Your task to perform on an android device: Turn off the flashlight Image 0: 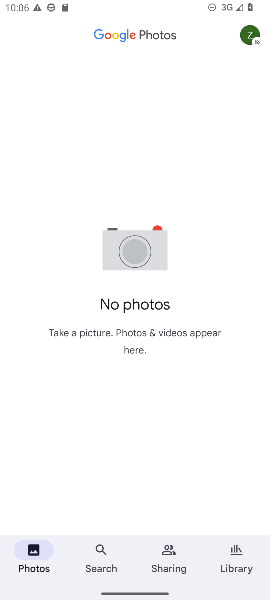
Step 0: press home button
Your task to perform on an android device: Turn off the flashlight Image 1: 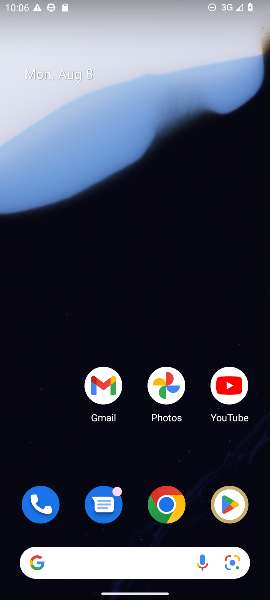
Step 1: drag from (134, 507) to (156, 230)
Your task to perform on an android device: Turn off the flashlight Image 2: 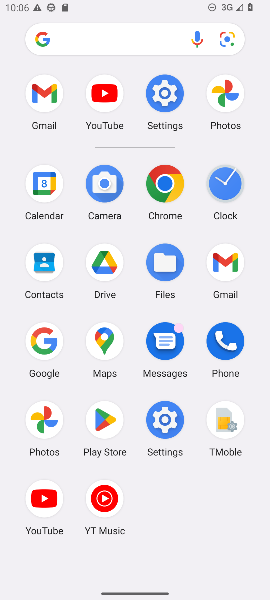
Step 2: click (165, 430)
Your task to perform on an android device: Turn off the flashlight Image 3: 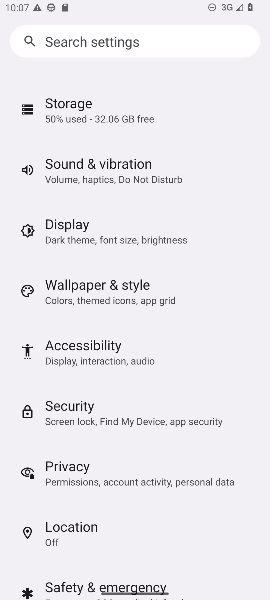
Step 3: click (84, 37)
Your task to perform on an android device: Turn off the flashlight Image 4: 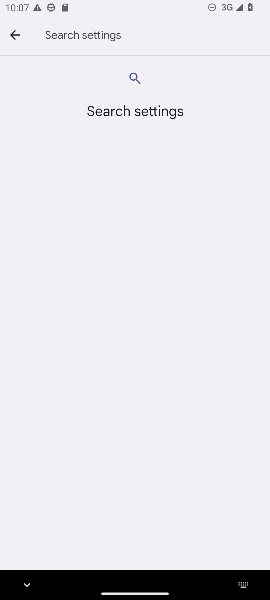
Step 4: type "flashlight"
Your task to perform on an android device: Turn off the flashlight Image 5: 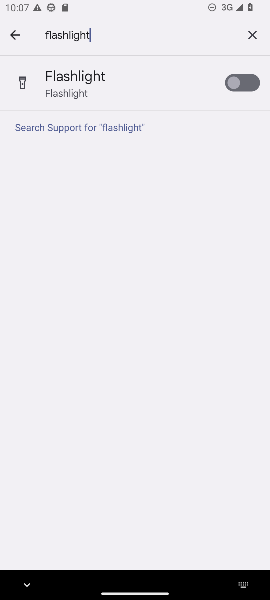
Step 5: task complete